Your task to perform on an android device: Toggle the flashlight Image 0: 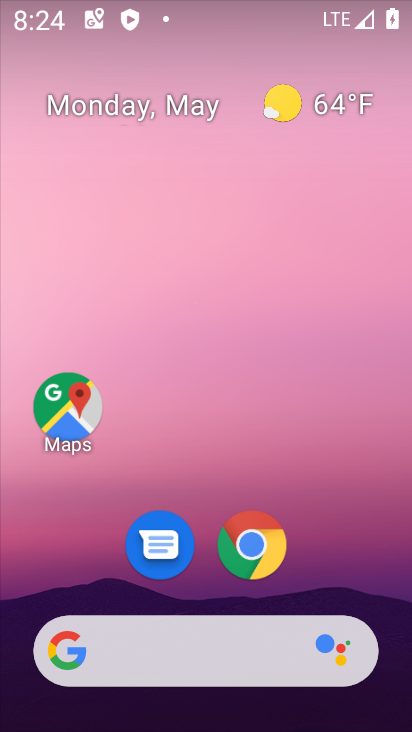
Step 0: drag from (147, 17) to (194, 525)
Your task to perform on an android device: Toggle the flashlight Image 1: 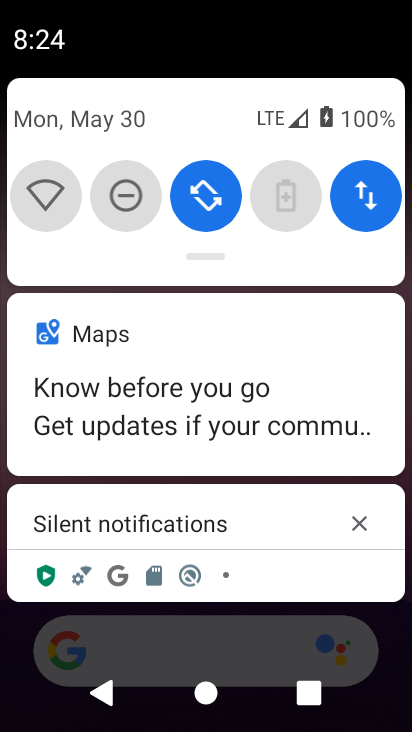
Step 1: task complete